Your task to perform on an android device: Check the settings for the Twitter app Image 0: 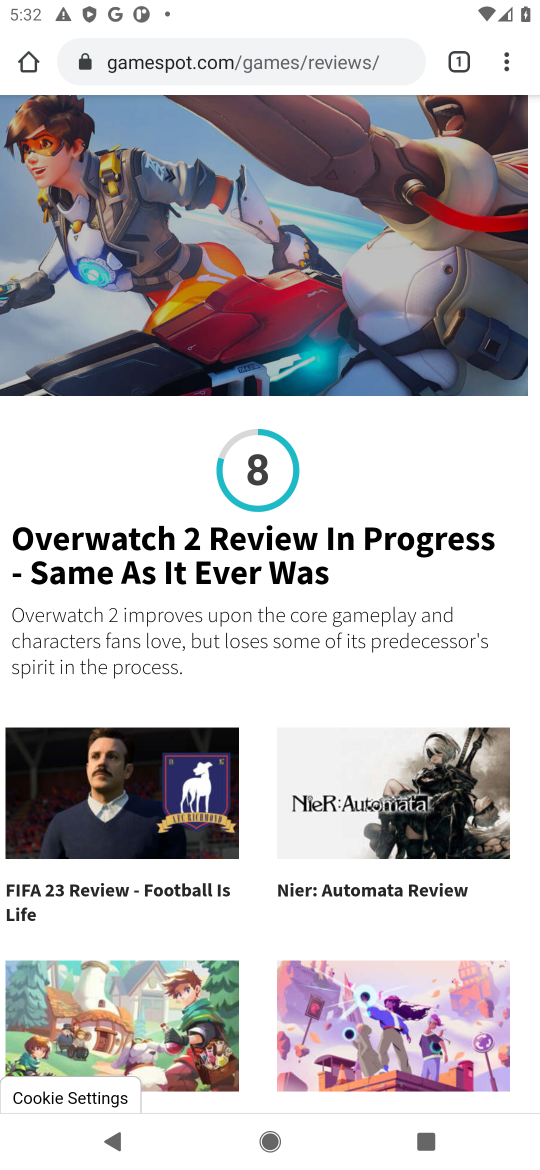
Step 0: press home button
Your task to perform on an android device: Check the settings for the Twitter app Image 1: 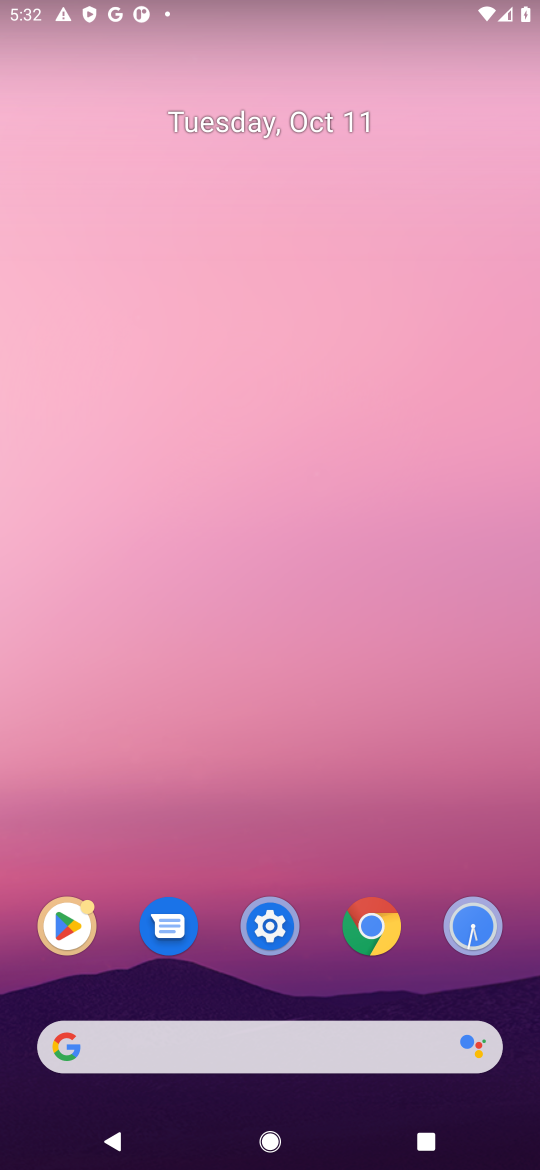
Step 1: task complete